Your task to perform on an android device: empty trash in google photos Image 0: 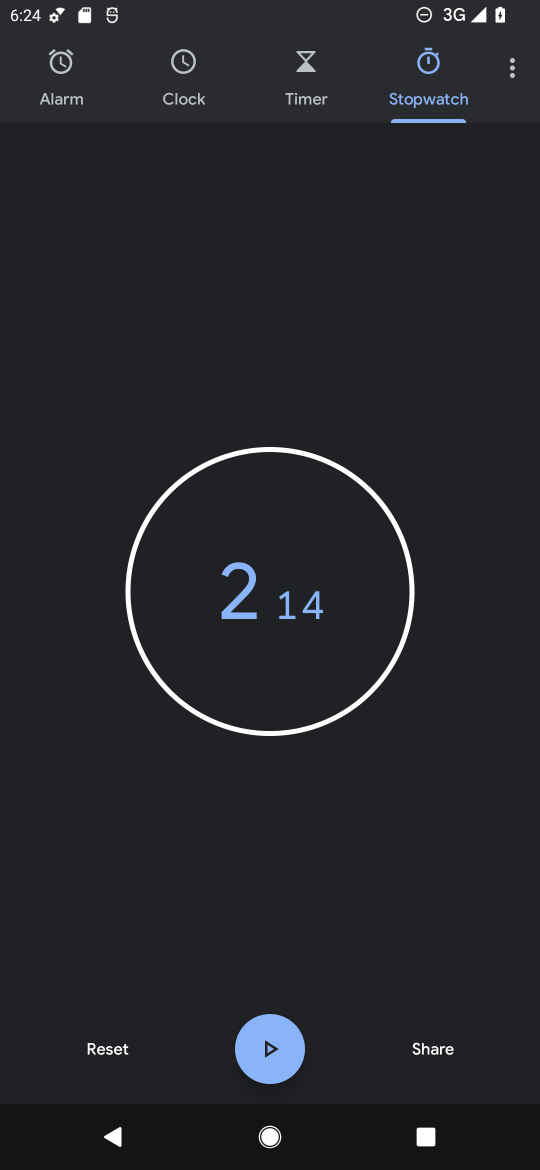
Step 0: press home button
Your task to perform on an android device: empty trash in google photos Image 1: 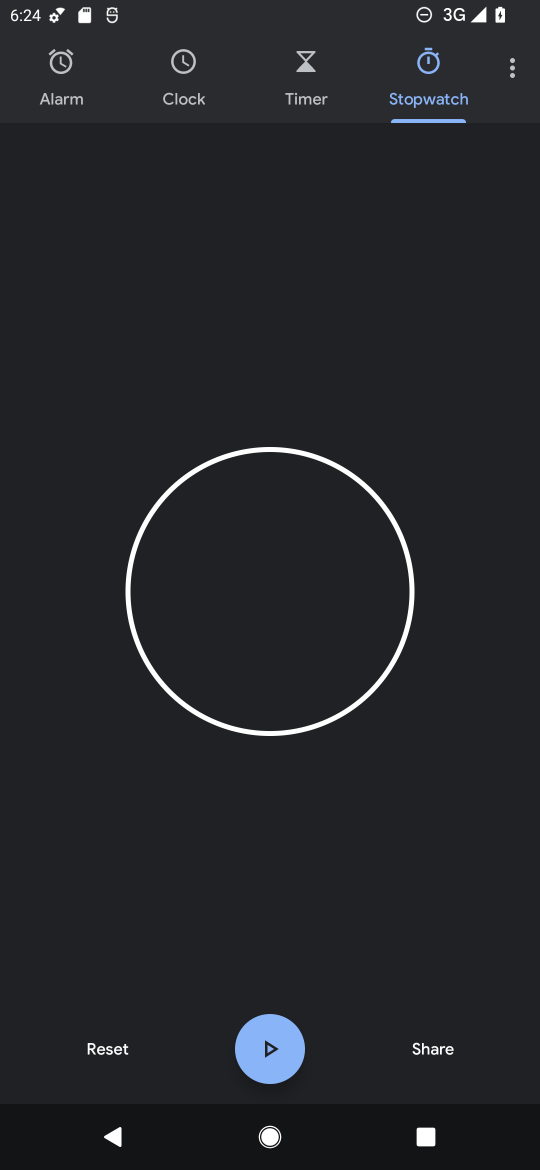
Step 1: press home button
Your task to perform on an android device: empty trash in google photos Image 2: 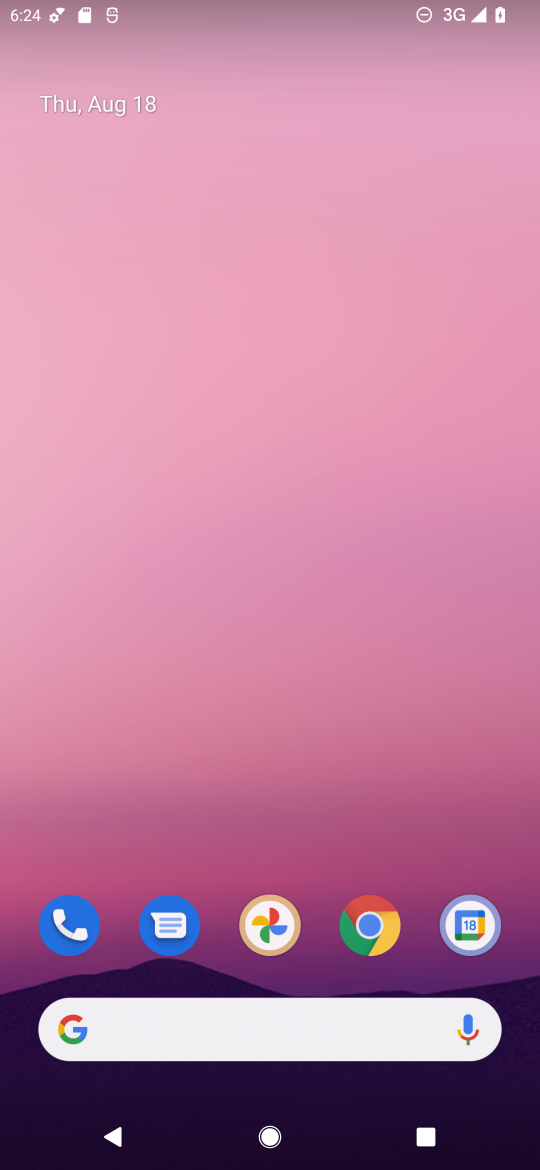
Step 2: press home button
Your task to perform on an android device: empty trash in google photos Image 3: 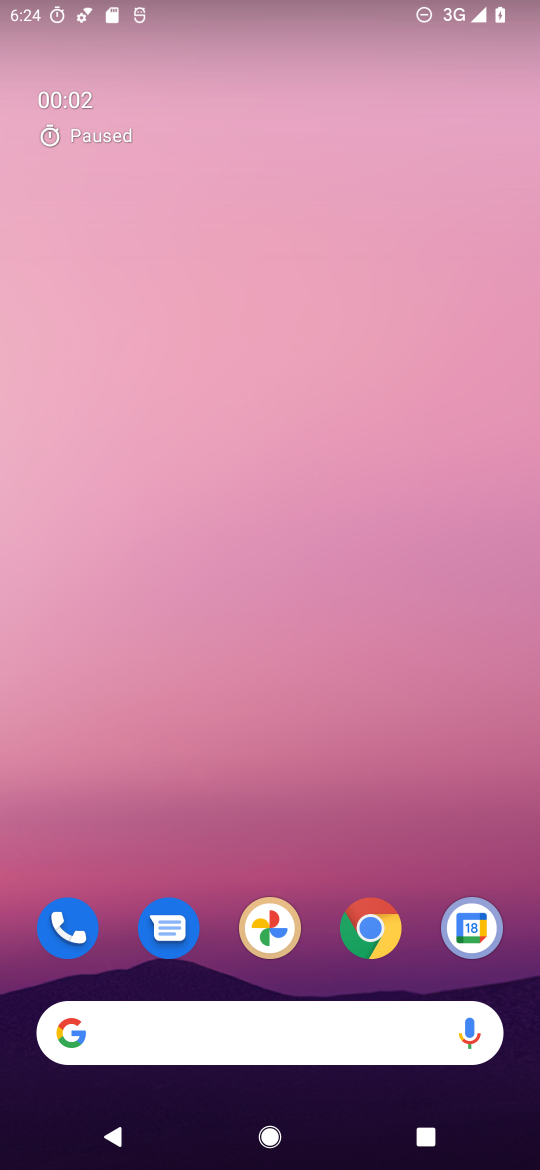
Step 3: drag from (385, 778) to (429, 0)
Your task to perform on an android device: empty trash in google photos Image 4: 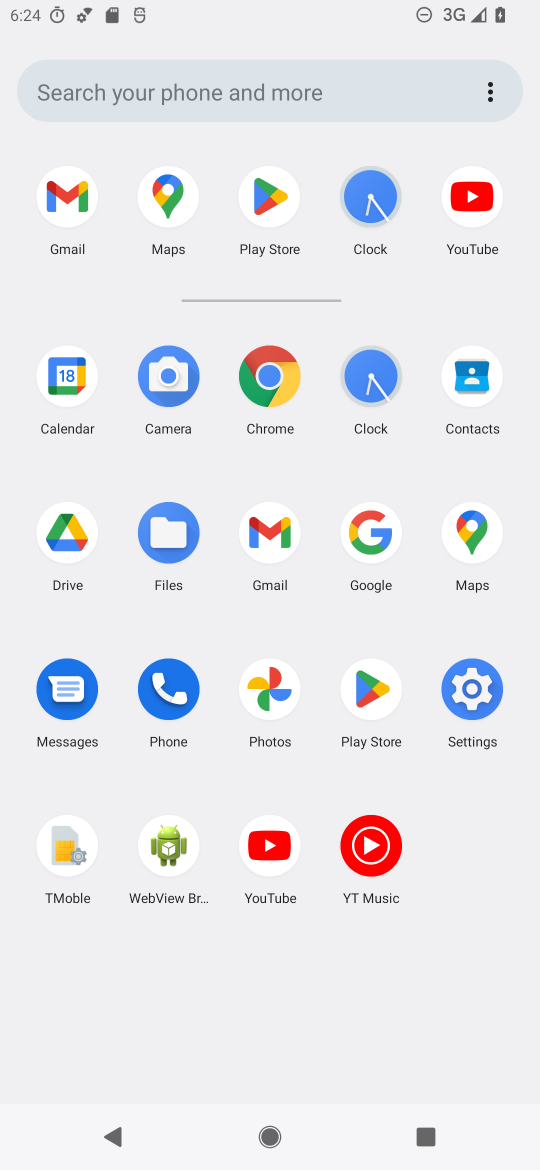
Step 4: click (272, 688)
Your task to perform on an android device: empty trash in google photos Image 5: 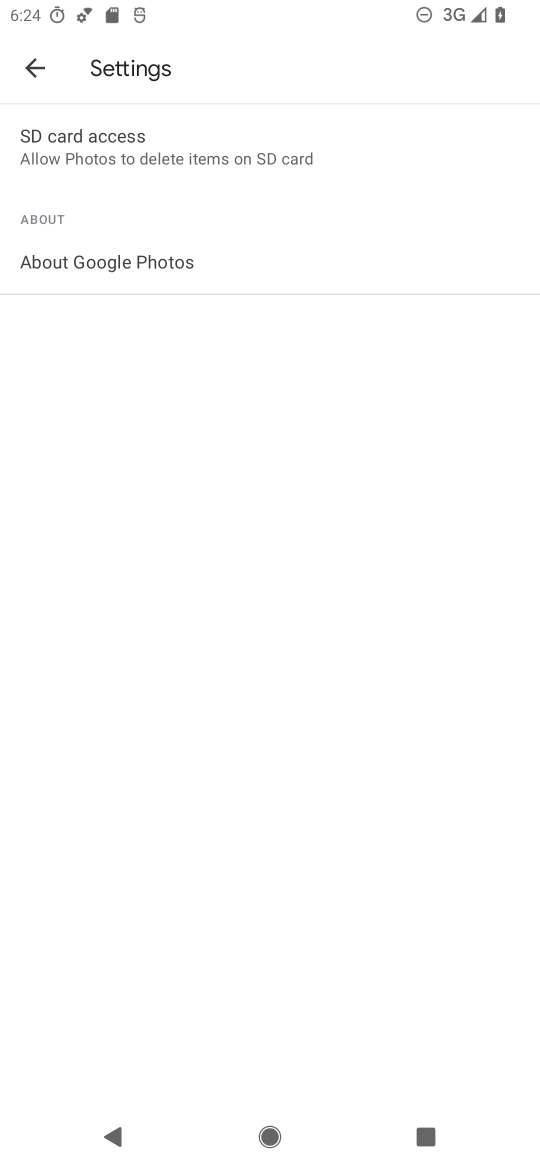
Step 5: press back button
Your task to perform on an android device: empty trash in google photos Image 6: 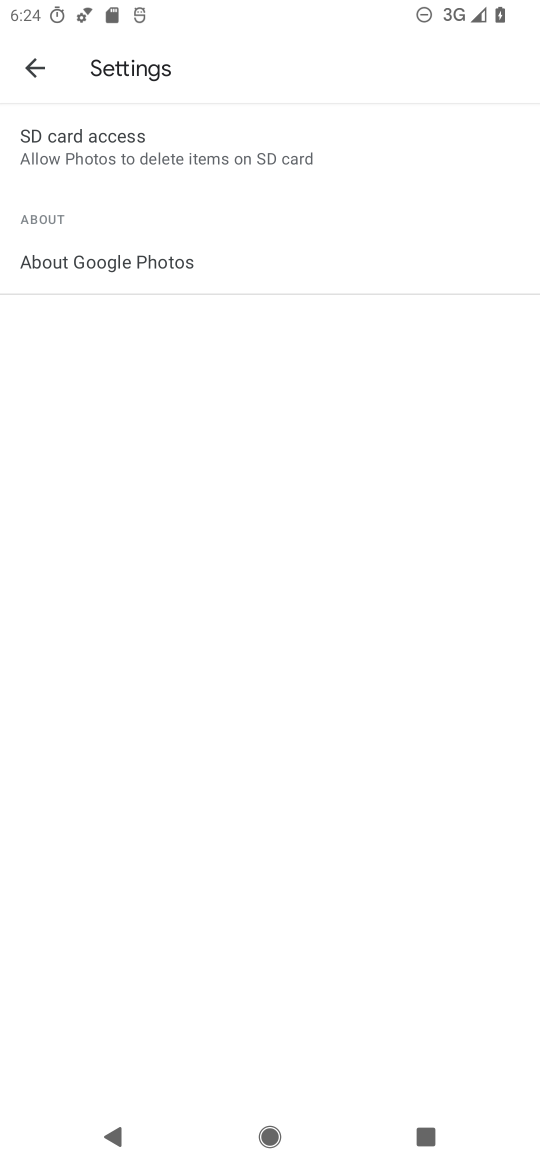
Step 6: press back button
Your task to perform on an android device: empty trash in google photos Image 7: 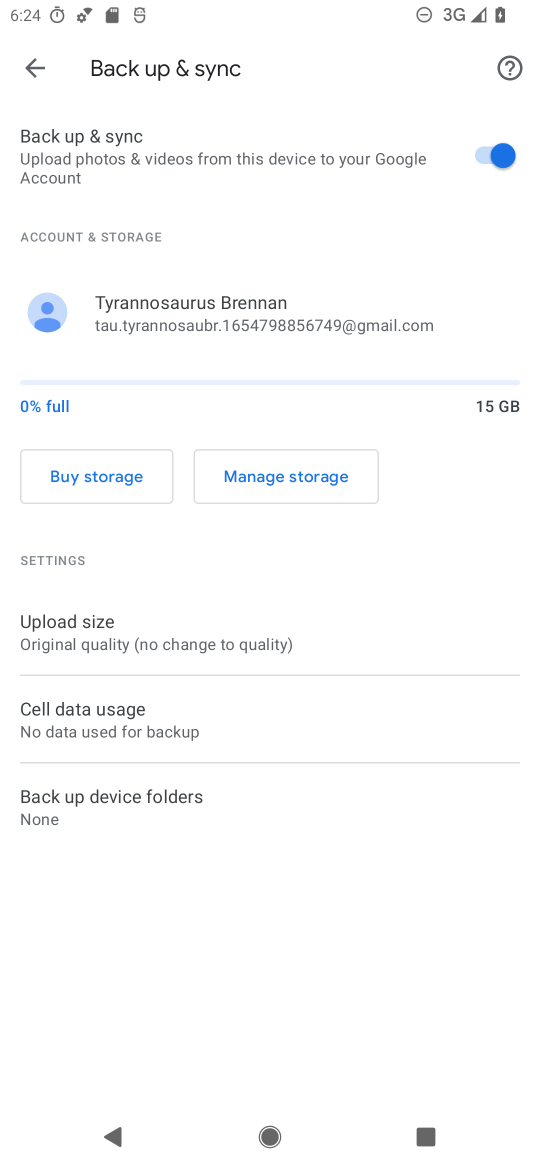
Step 7: press back button
Your task to perform on an android device: empty trash in google photos Image 8: 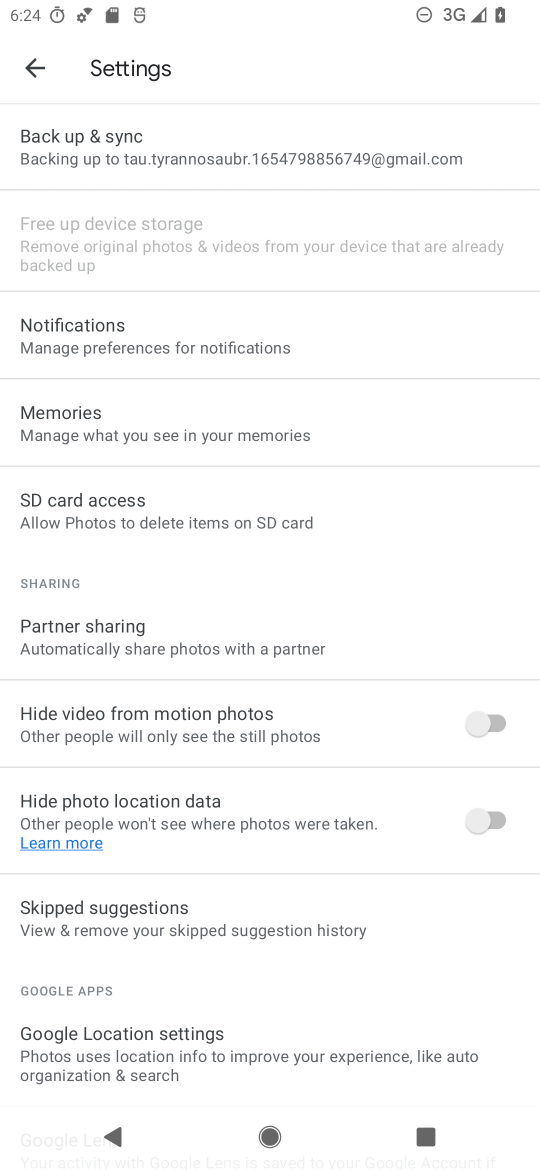
Step 8: press back button
Your task to perform on an android device: empty trash in google photos Image 9: 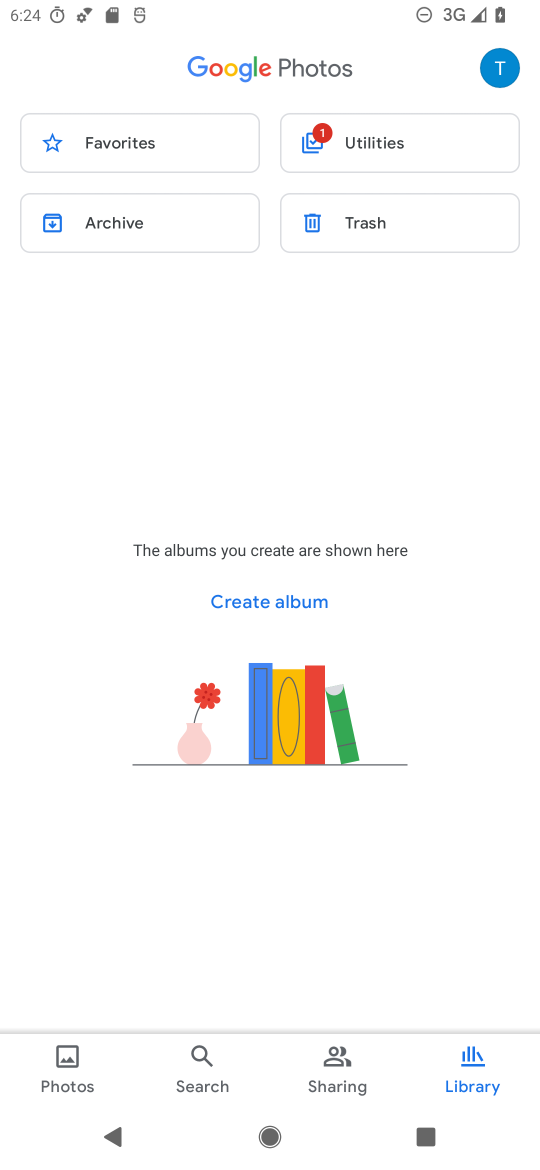
Step 9: click (384, 215)
Your task to perform on an android device: empty trash in google photos Image 10: 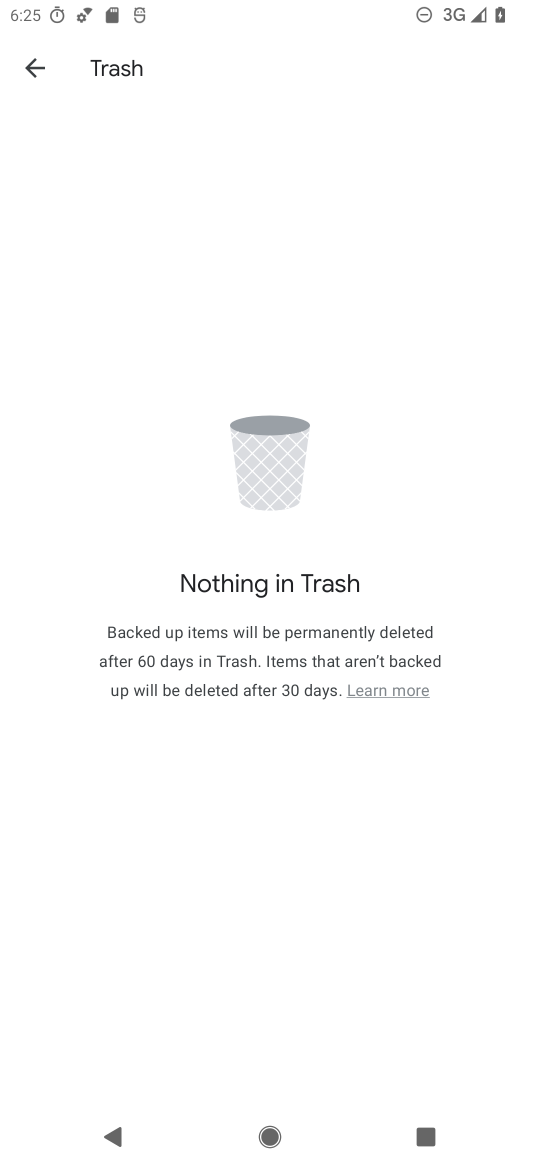
Step 10: task complete